Your task to perform on an android device: delete location history Image 0: 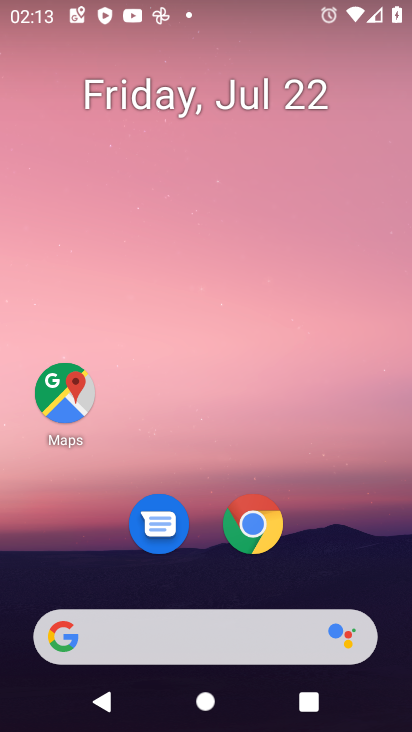
Step 0: drag from (153, 623) to (283, 136)
Your task to perform on an android device: delete location history Image 1: 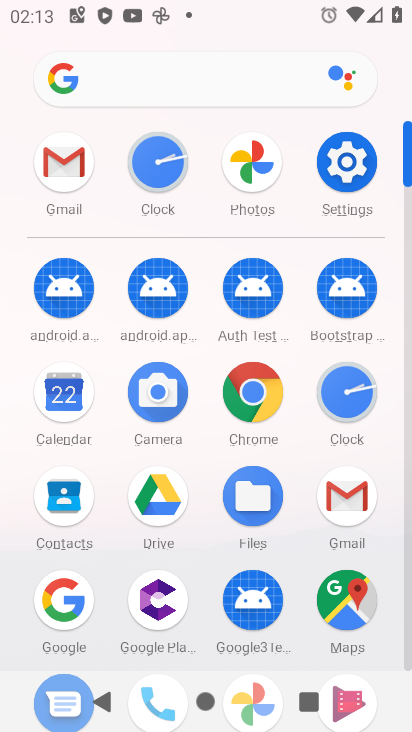
Step 1: click (347, 585)
Your task to perform on an android device: delete location history Image 2: 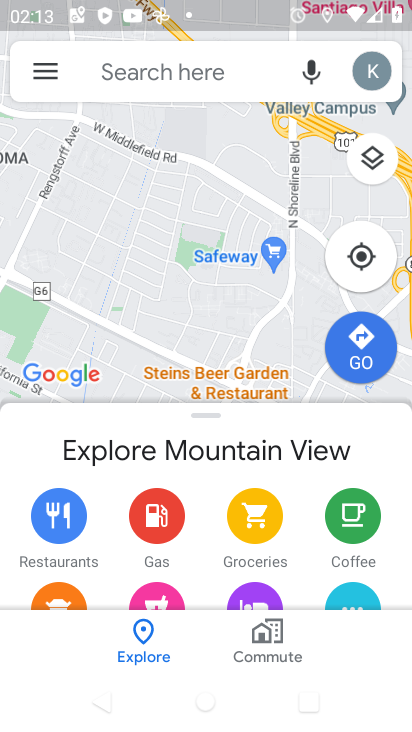
Step 2: click (51, 66)
Your task to perform on an android device: delete location history Image 3: 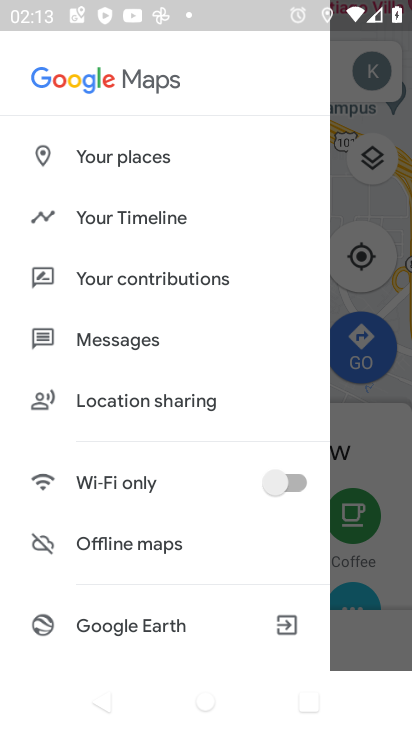
Step 3: click (148, 217)
Your task to perform on an android device: delete location history Image 4: 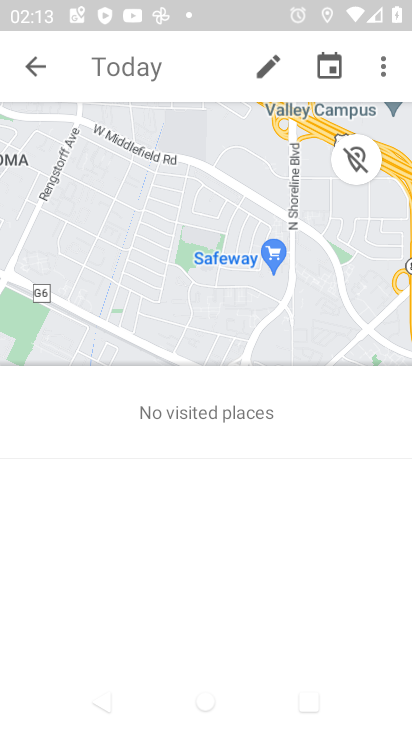
Step 4: click (378, 64)
Your task to perform on an android device: delete location history Image 5: 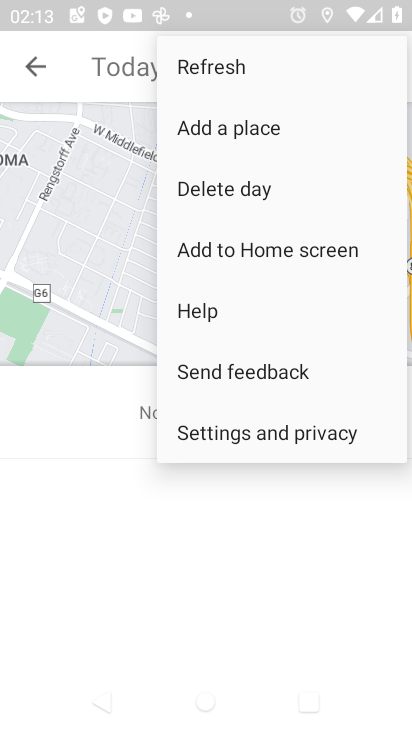
Step 5: click (252, 429)
Your task to perform on an android device: delete location history Image 6: 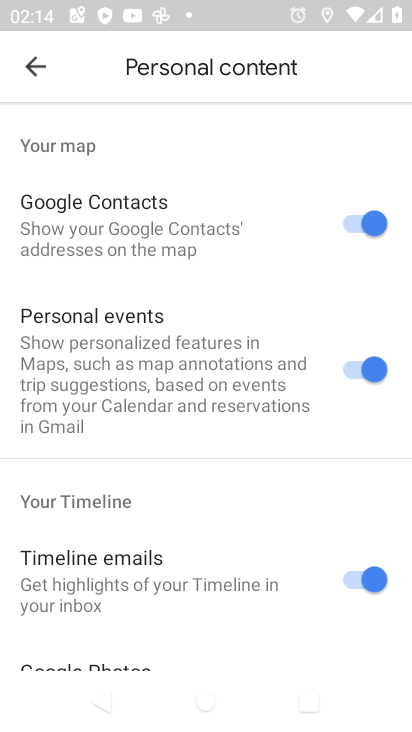
Step 6: drag from (212, 555) to (333, 31)
Your task to perform on an android device: delete location history Image 7: 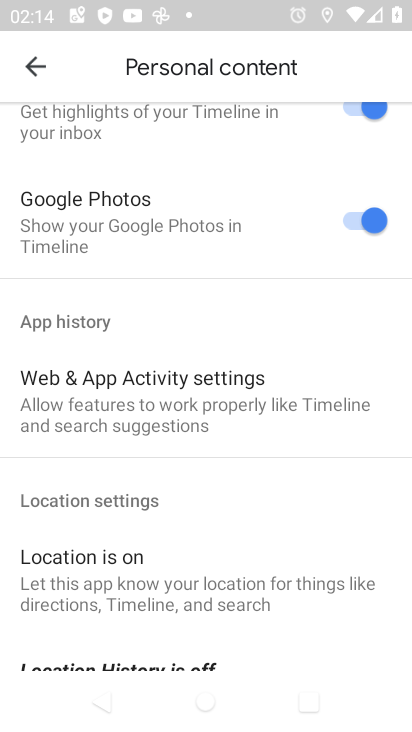
Step 7: drag from (193, 560) to (293, 210)
Your task to perform on an android device: delete location history Image 8: 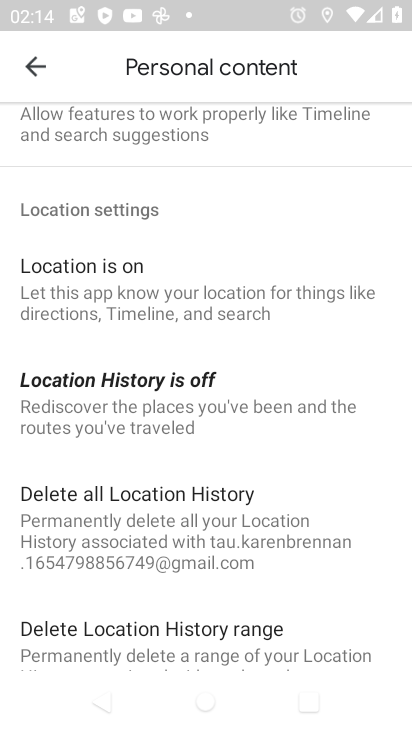
Step 8: click (134, 517)
Your task to perform on an android device: delete location history Image 9: 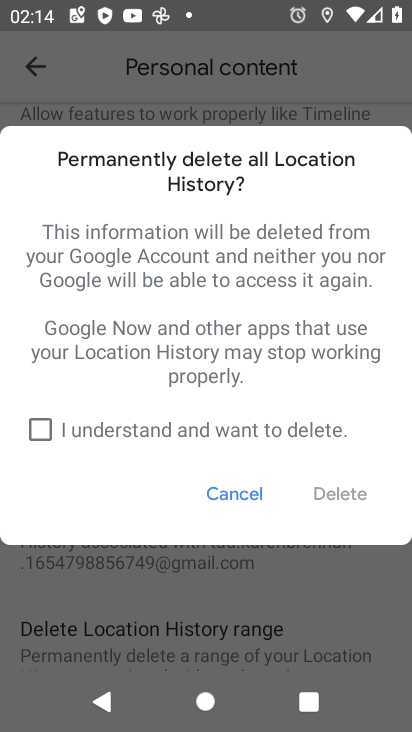
Step 9: click (40, 425)
Your task to perform on an android device: delete location history Image 10: 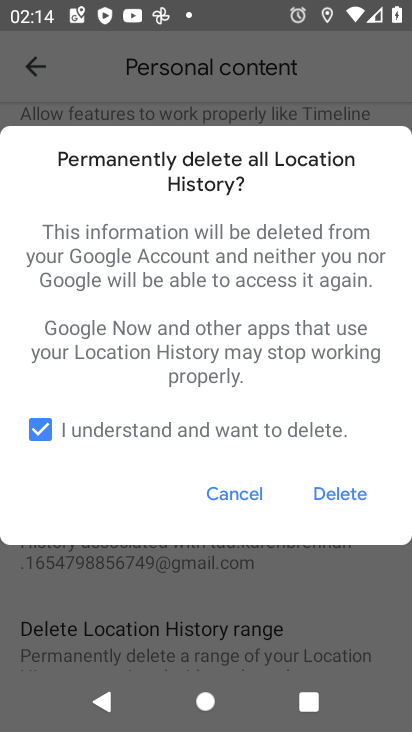
Step 10: click (344, 492)
Your task to perform on an android device: delete location history Image 11: 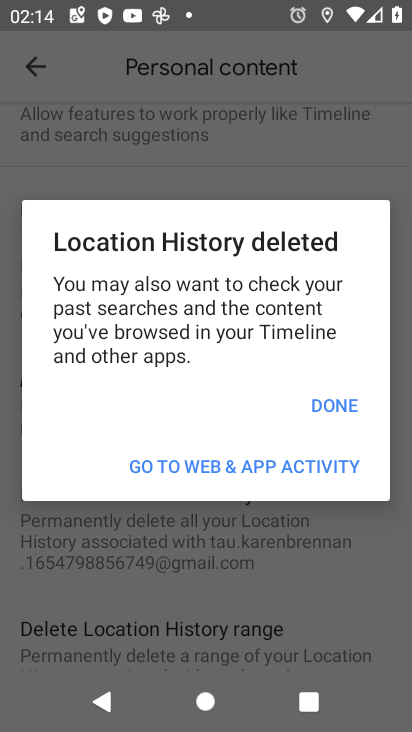
Step 11: click (335, 411)
Your task to perform on an android device: delete location history Image 12: 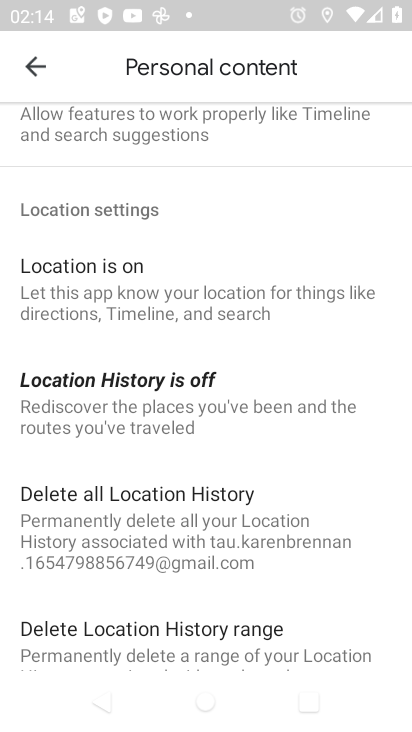
Step 12: task complete